Your task to perform on an android device: Add "macbook" to the cart on amazon.com, then select checkout. Image 0: 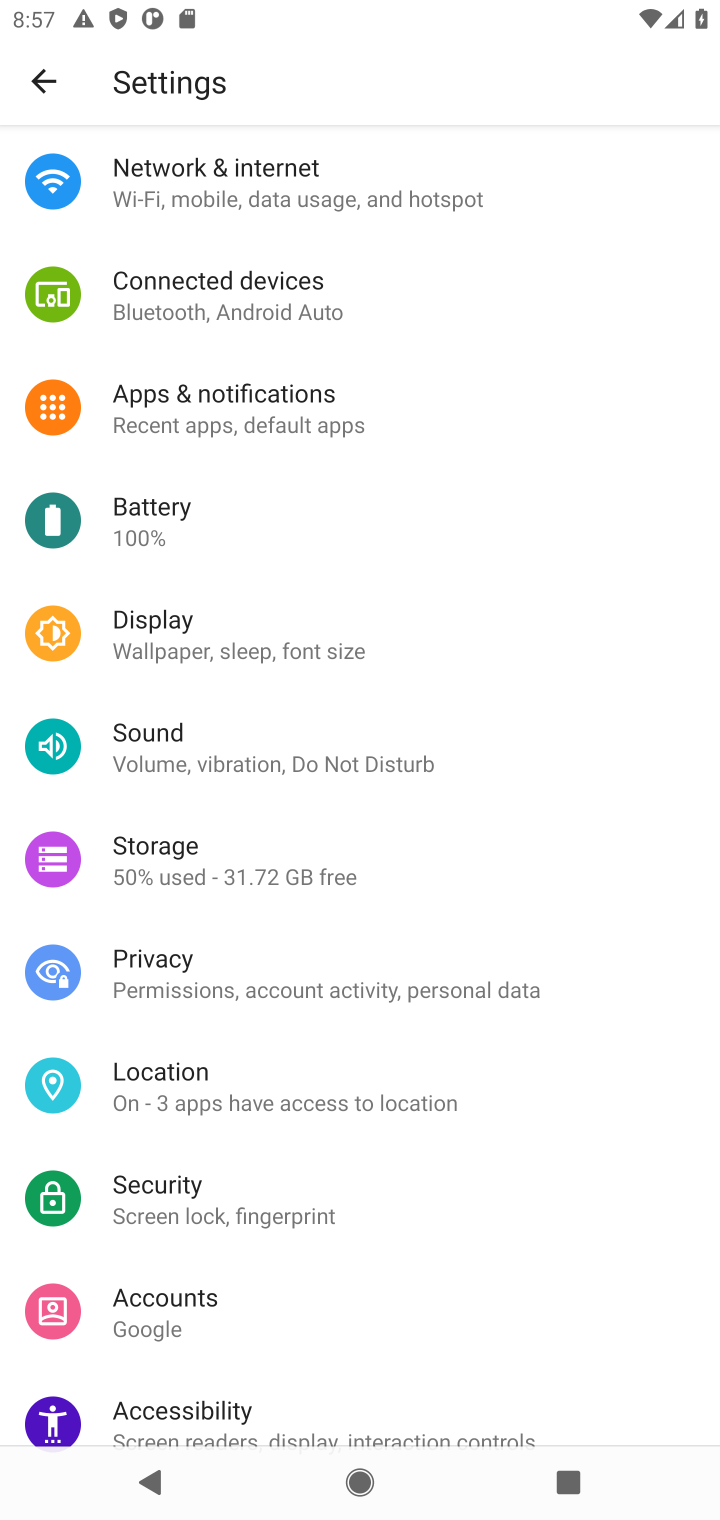
Step 0: press home button
Your task to perform on an android device: Add "macbook" to the cart on amazon.com, then select checkout. Image 1: 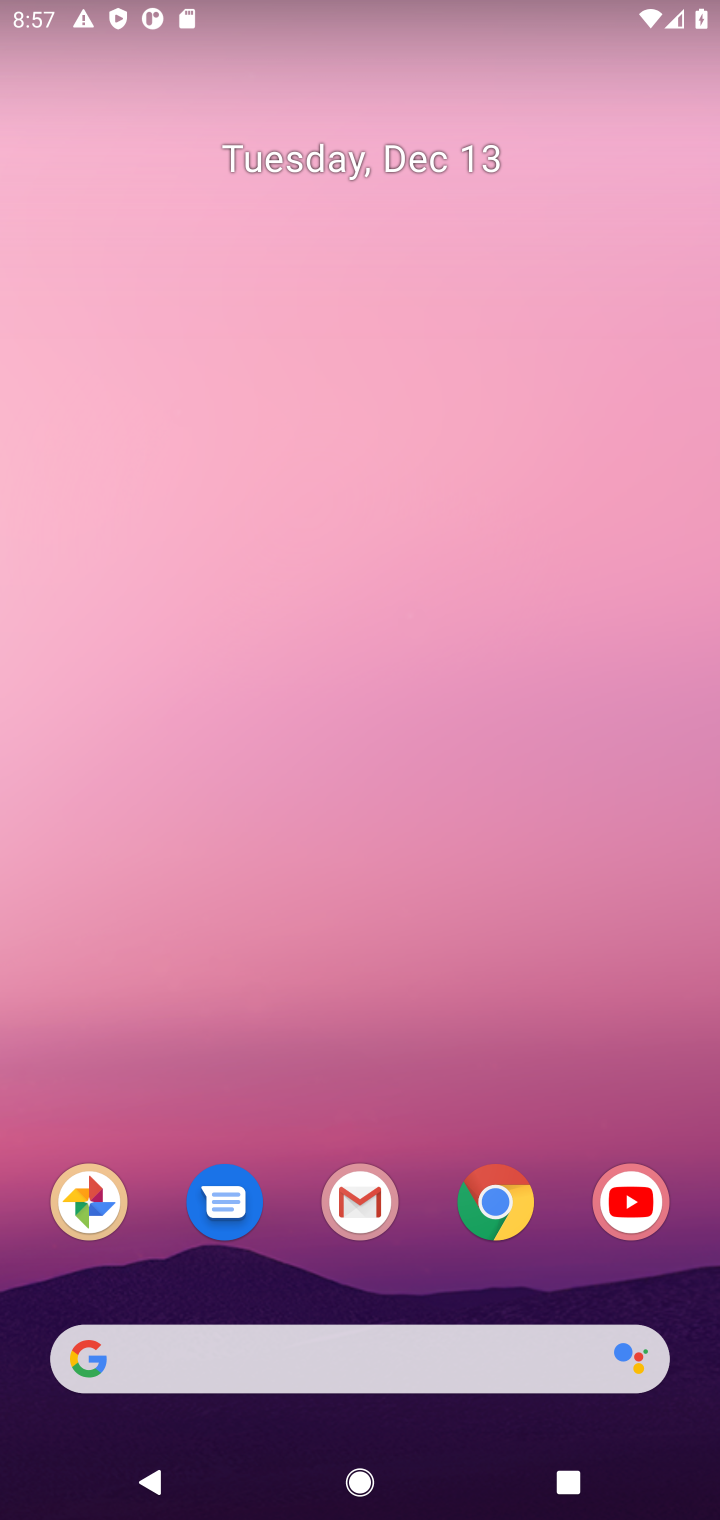
Step 1: click (508, 1200)
Your task to perform on an android device: Add "macbook" to the cart on amazon.com, then select checkout. Image 2: 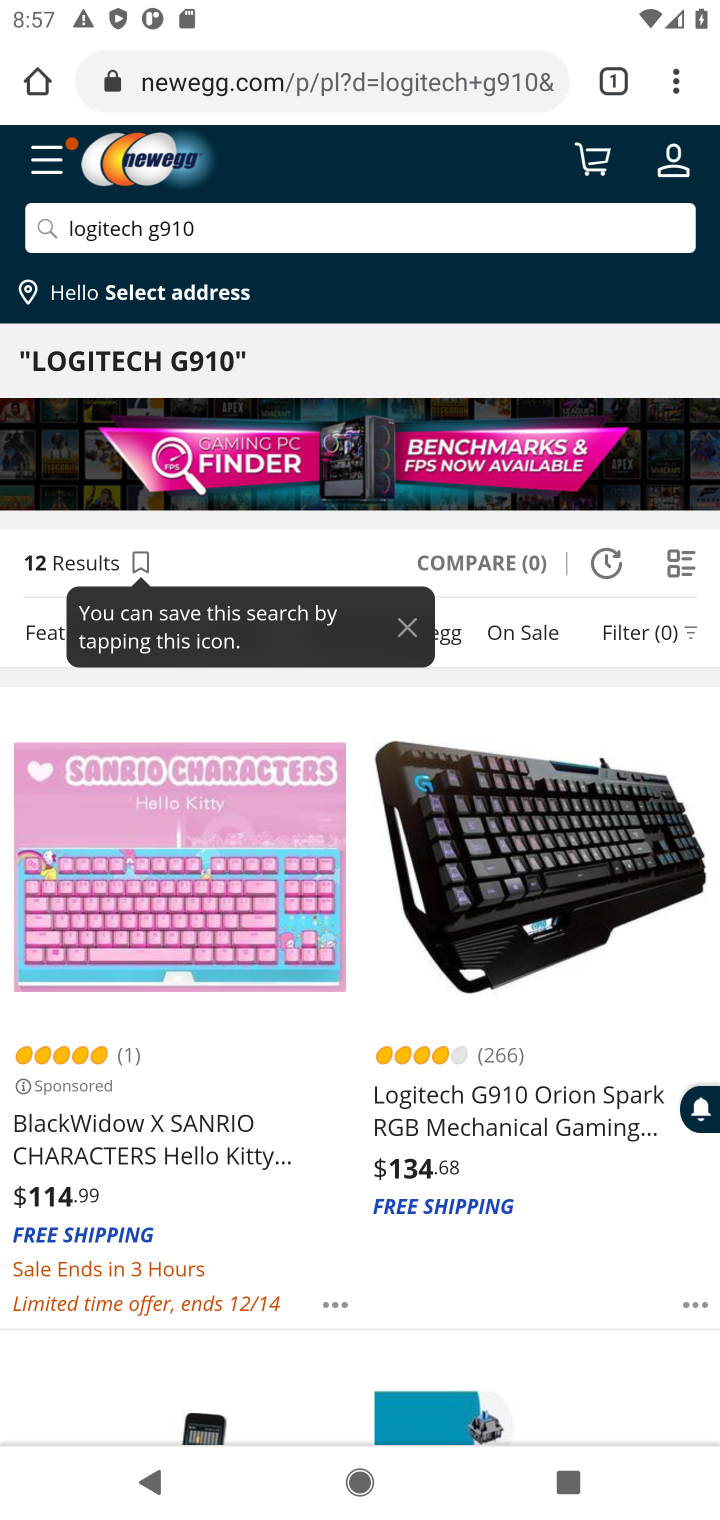
Step 2: click (243, 83)
Your task to perform on an android device: Add "macbook" to the cart on amazon.com, then select checkout. Image 3: 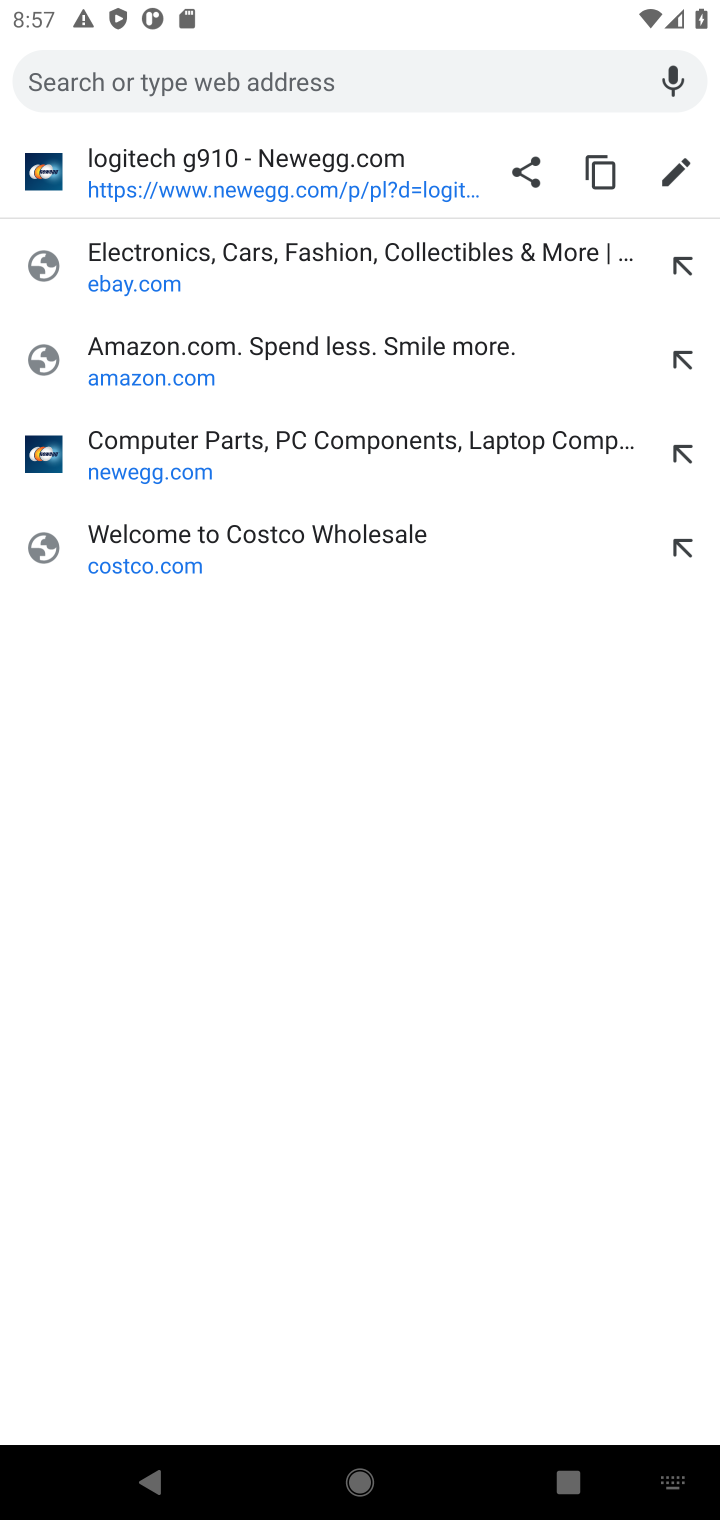
Step 3: click (146, 356)
Your task to perform on an android device: Add "macbook" to the cart on amazon.com, then select checkout. Image 4: 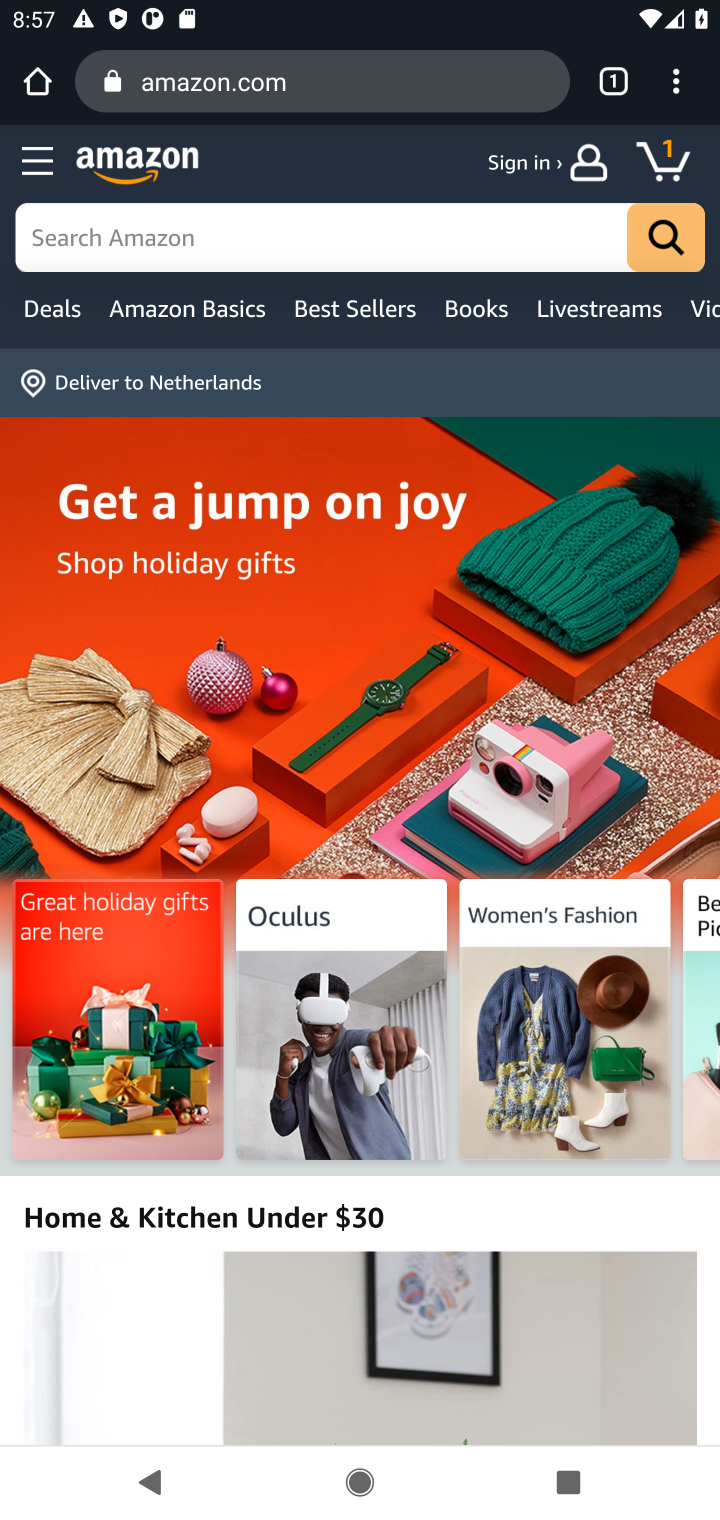
Step 4: click (202, 267)
Your task to perform on an android device: Add "macbook" to the cart on amazon.com, then select checkout. Image 5: 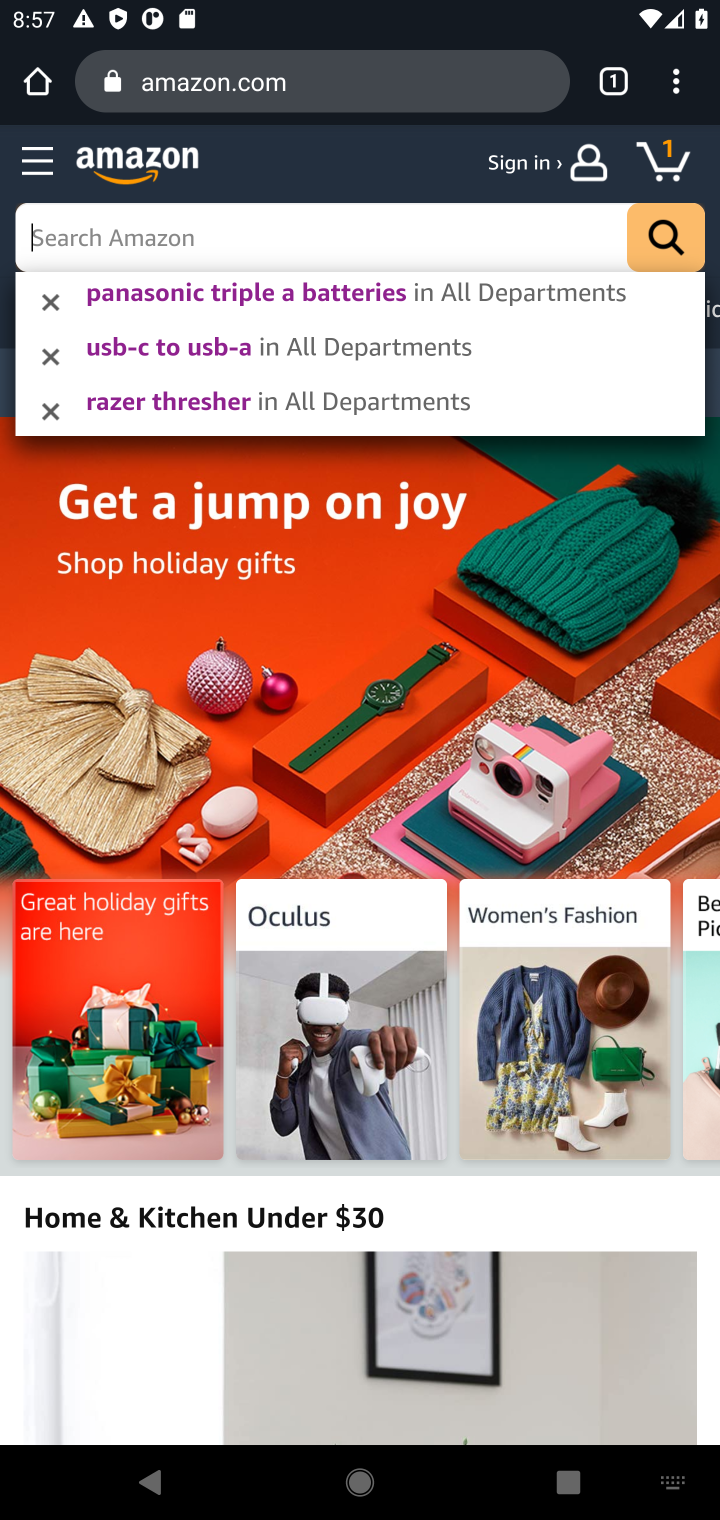
Step 5: type "macbook"
Your task to perform on an android device: Add "macbook" to the cart on amazon.com, then select checkout. Image 6: 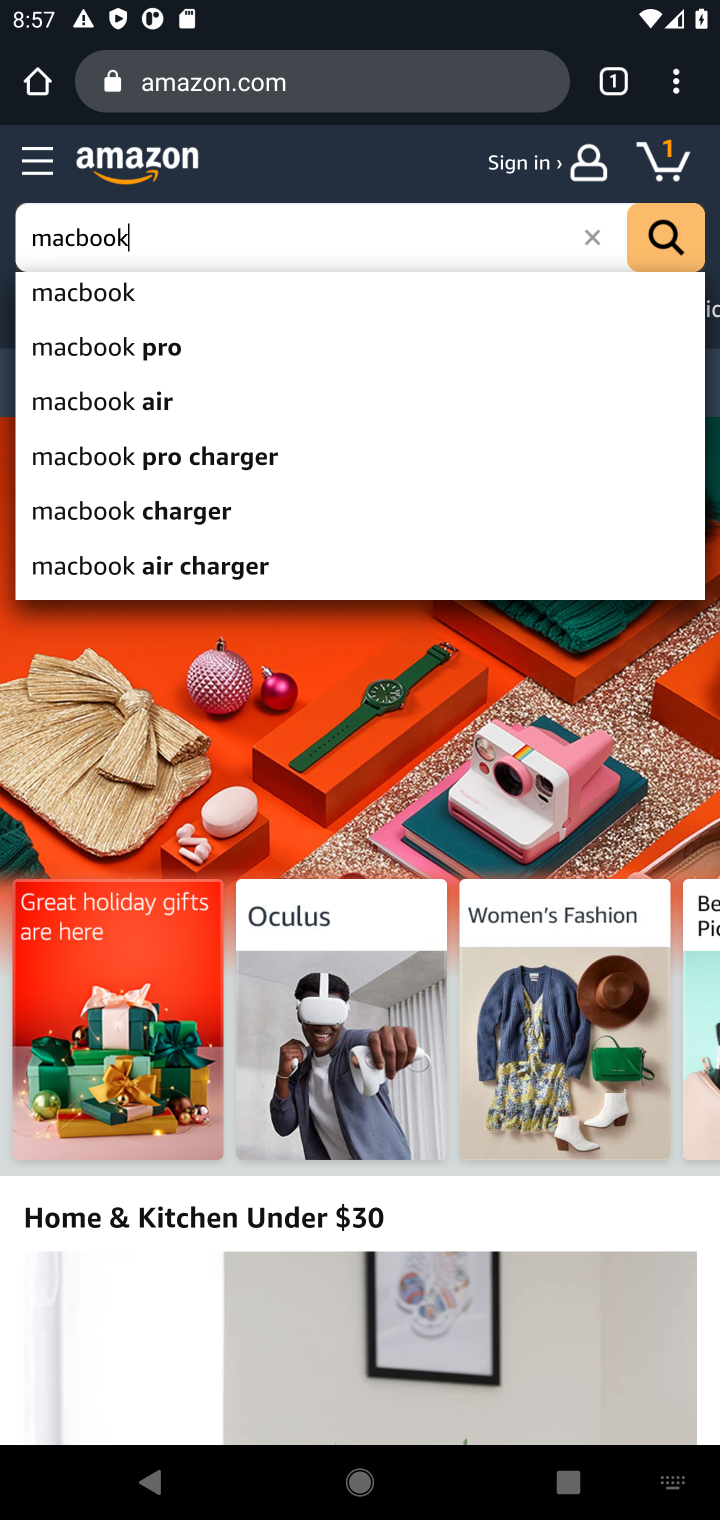
Step 6: click (118, 291)
Your task to perform on an android device: Add "macbook" to the cart on amazon.com, then select checkout. Image 7: 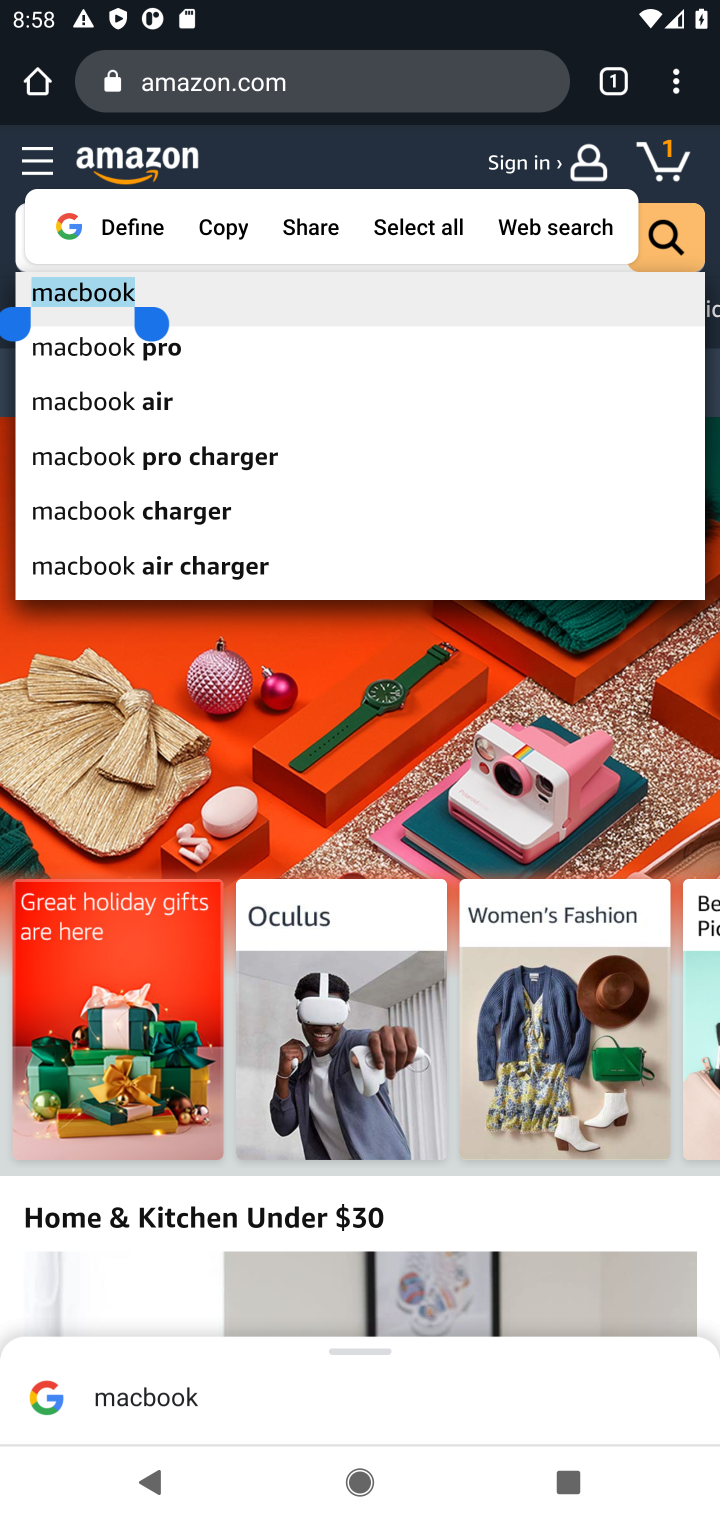
Step 7: click (99, 291)
Your task to perform on an android device: Add "macbook" to the cart on amazon.com, then select checkout. Image 8: 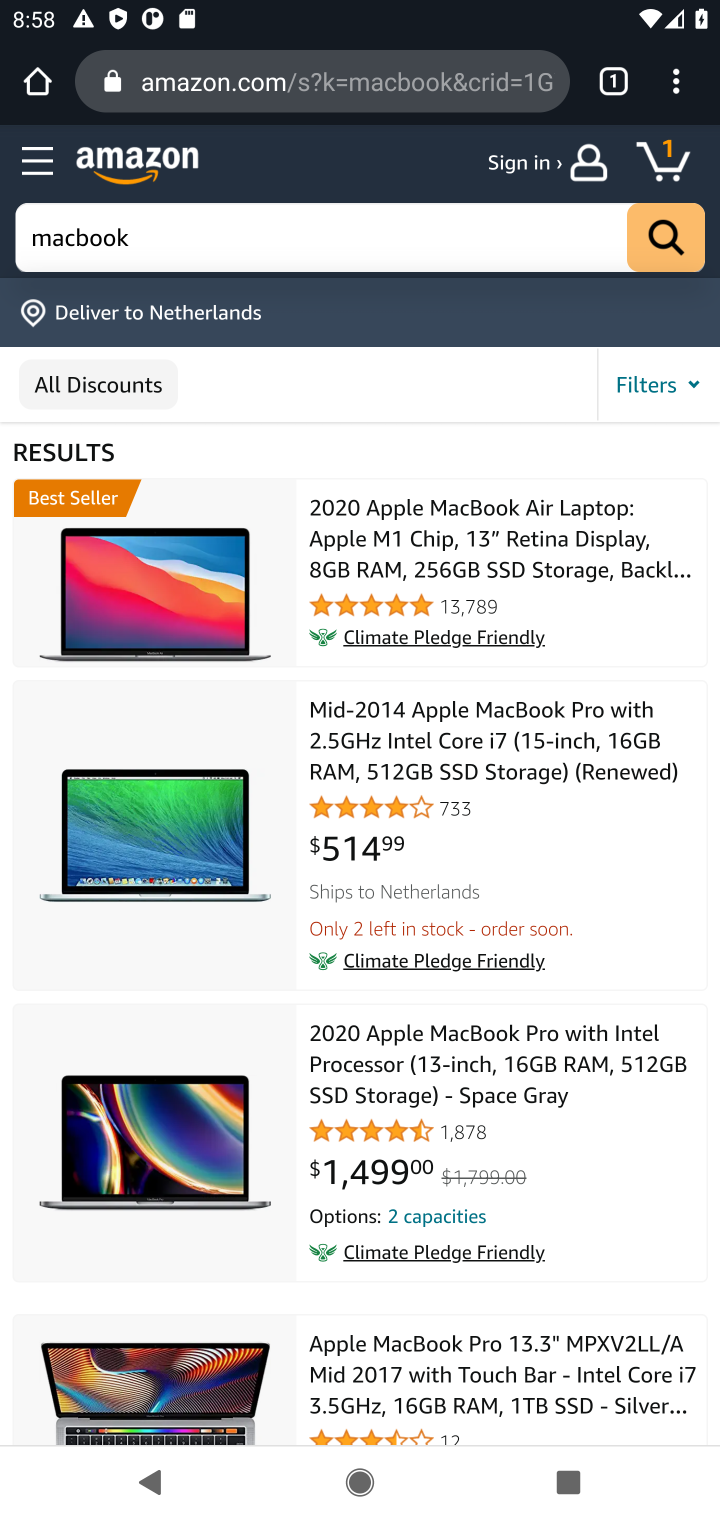
Step 8: drag from (357, 985) to (363, 558)
Your task to perform on an android device: Add "macbook" to the cart on amazon.com, then select checkout. Image 9: 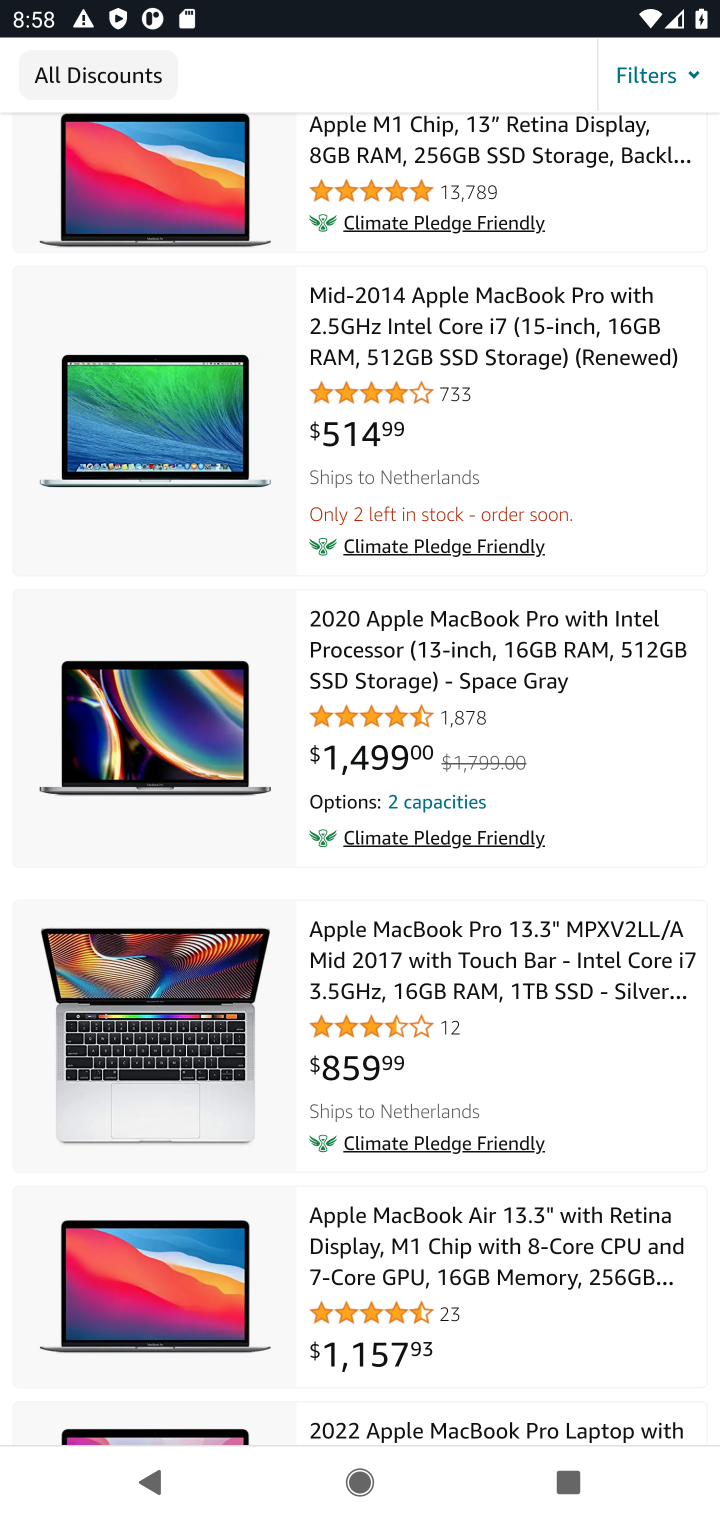
Step 9: click (387, 982)
Your task to perform on an android device: Add "macbook" to the cart on amazon.com, then select checkout. Image 10: 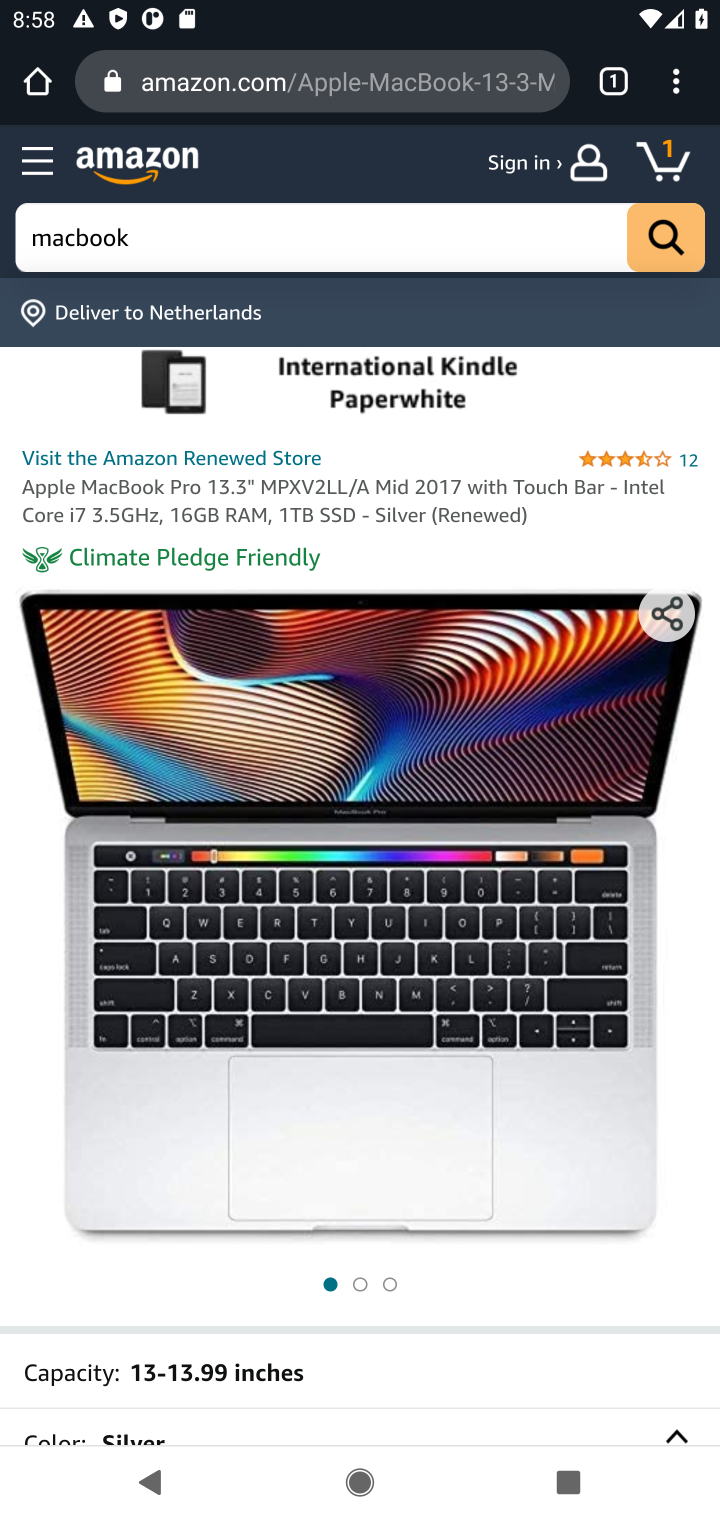
Step 10: drag from (369, 1083) to (396, 763)
Your task to perform on an android device: Add "macbook" to the cart on amazon.com, then select checkout. Image 11: 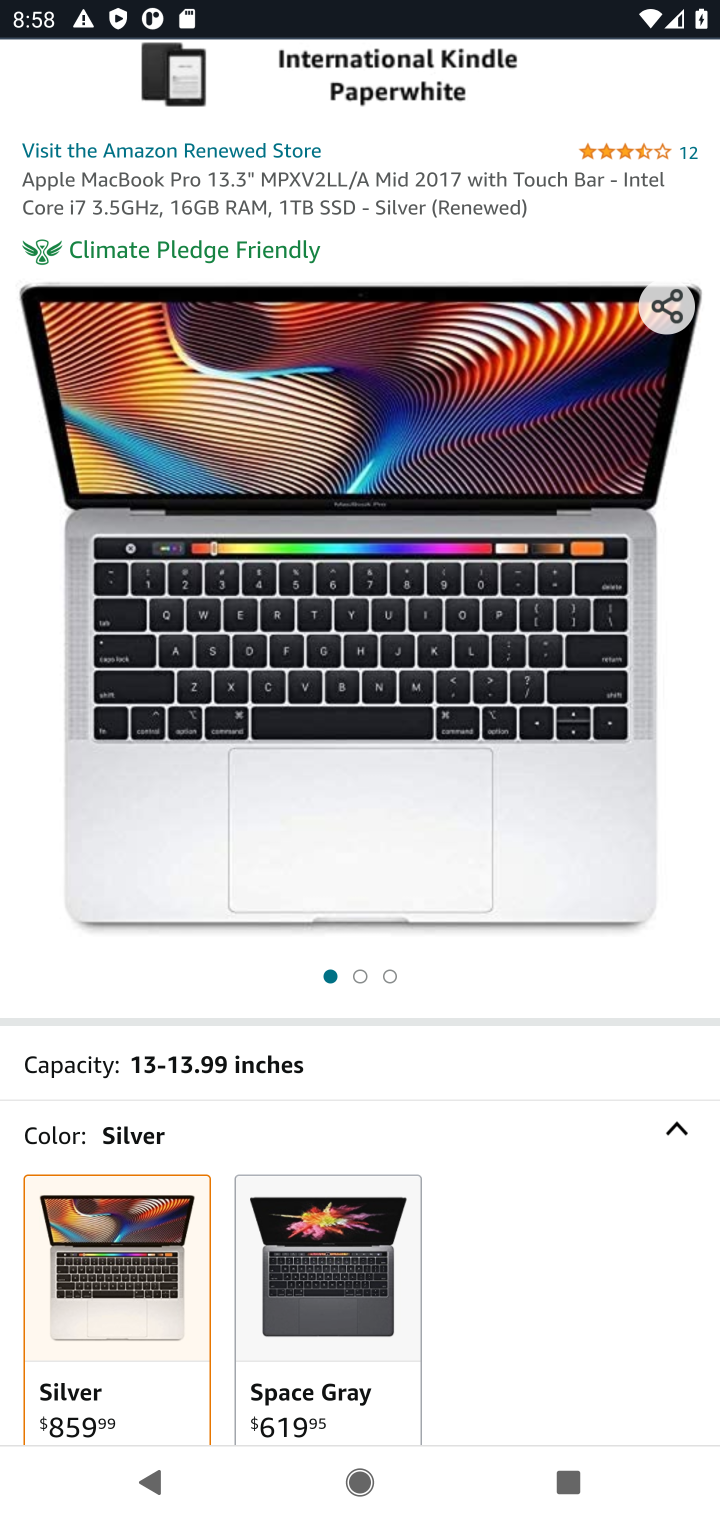
Step 11: drag from (397, 1089) to (356, 591)
Your task to perform on an android device: Add "macbook" to the cart on amazon.com, then select checkout. Image 12: 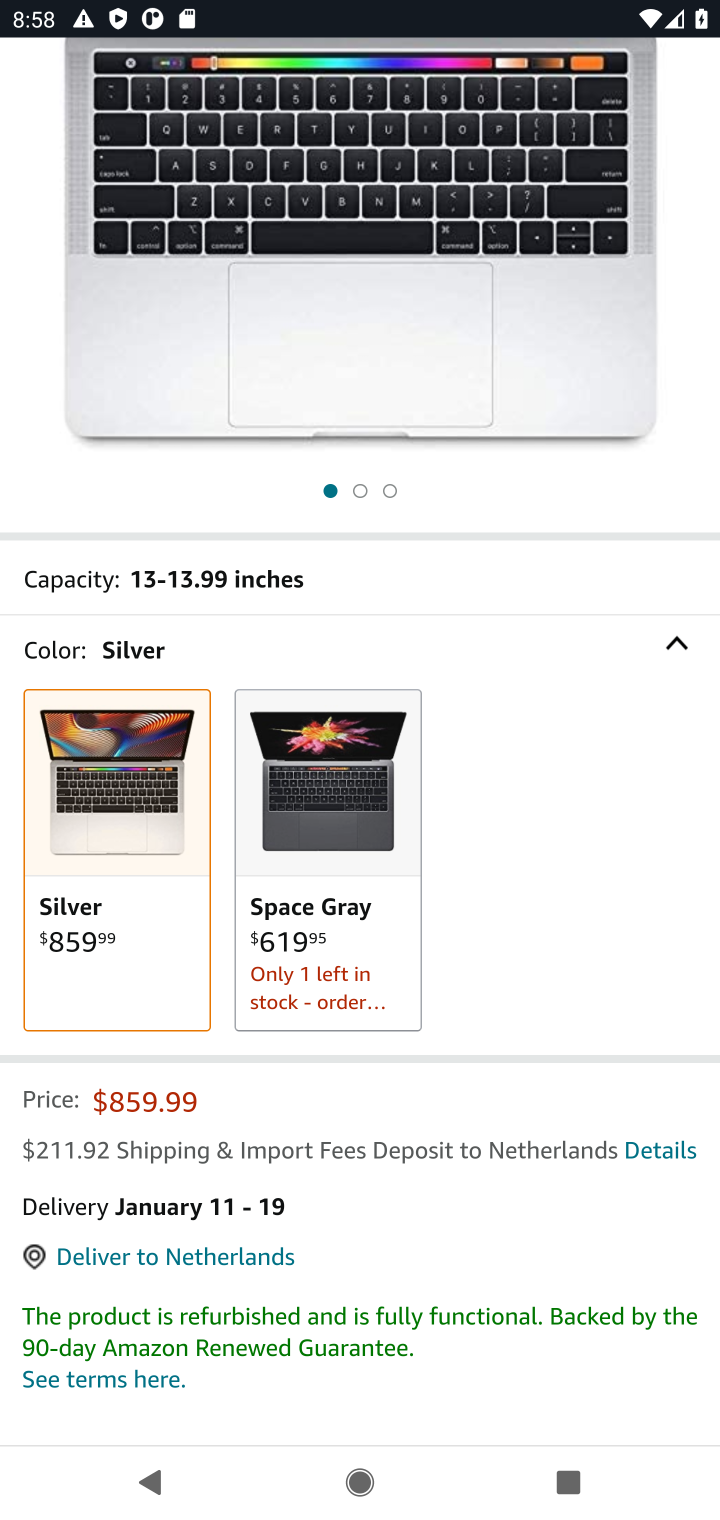
Step 12: drag from (384, 959) to (400, 464)
Your task to perform on an android device: Add "macbook" to the cart on amazon.com, then select checkout. Image 13: 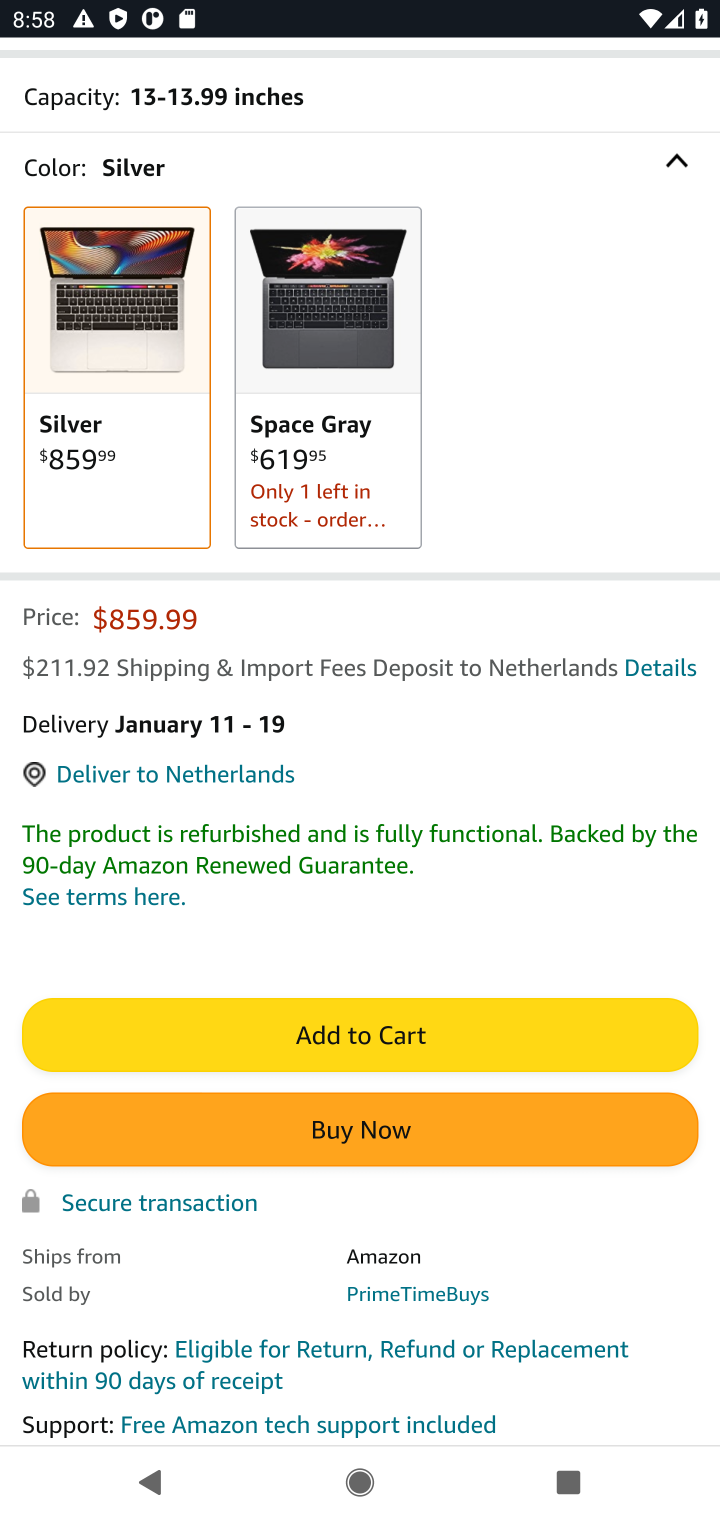
Step 13: click (331, 1039)
Your task to perform on an android device: Add "macbook" to the cart on amazon.com, then select checkout. Image 14: 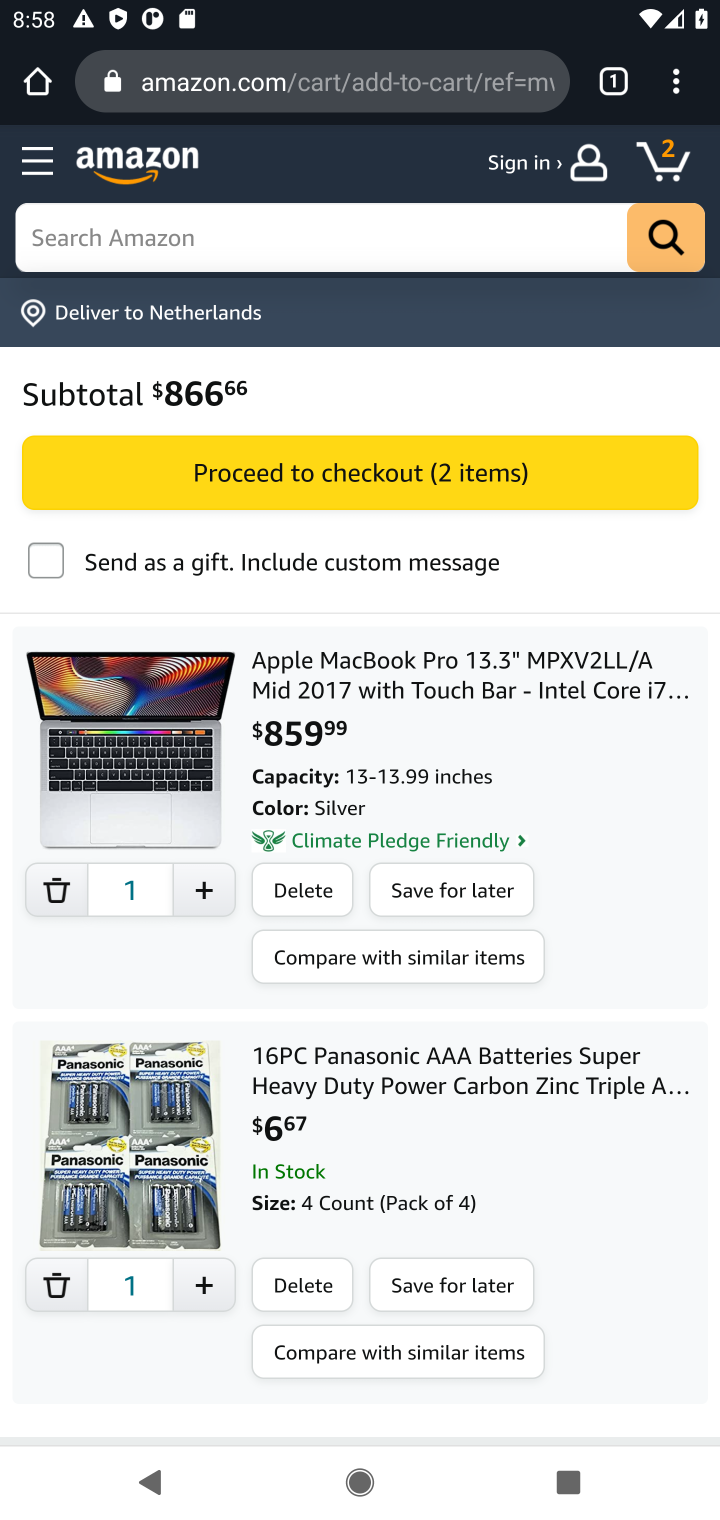
Step 14: click (235, 474)
Your task to perform on an android device: Add "macbook" to the cart on amazon.com, then select checkout. Image 15: 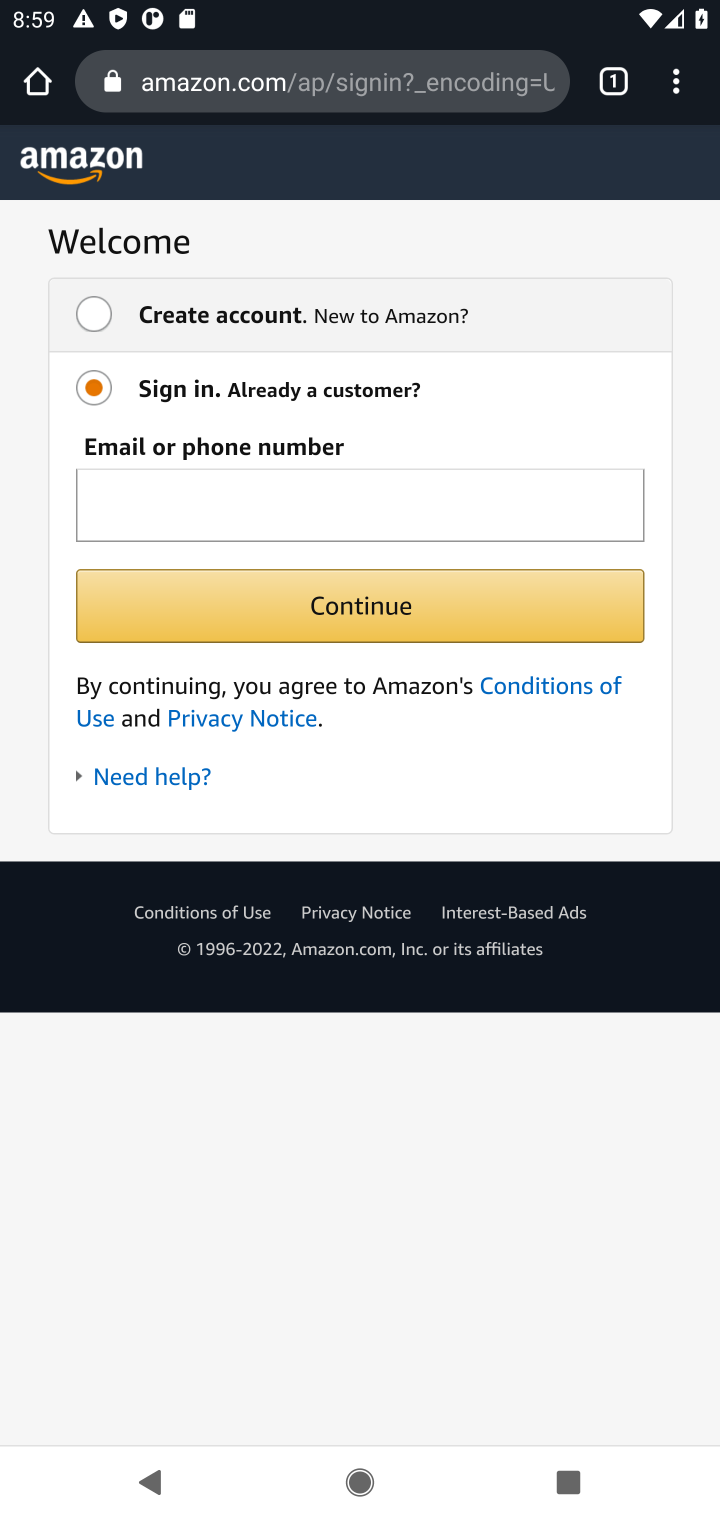
Step 15: task complete